Your task to perform on an android device: turn on javascript in the chrome app Image 0: 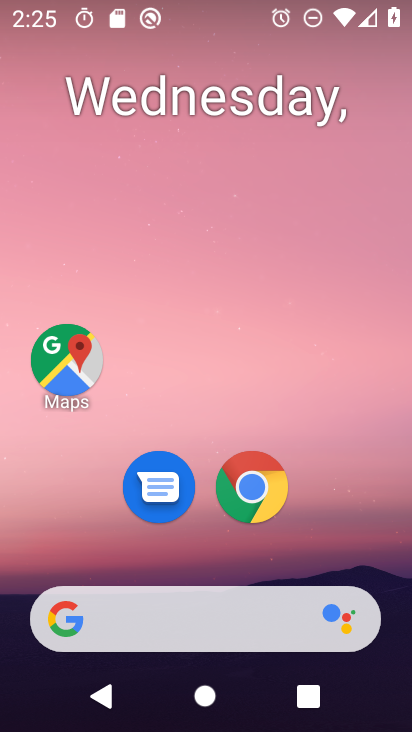
Step 0: click (257, 489)
Your task to perform on an android device: turn on javascript in the chrome app Image 1: 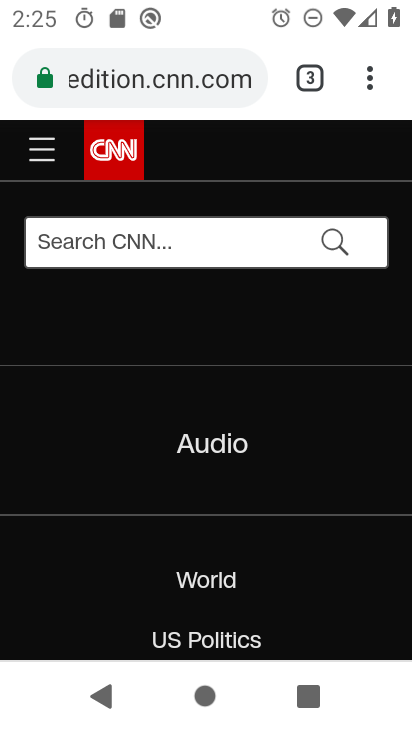
Step 1: drag from (369, 73) to (84, 542)
Your task to perform on an android device: turn on javascript in the chrome app Image 2: 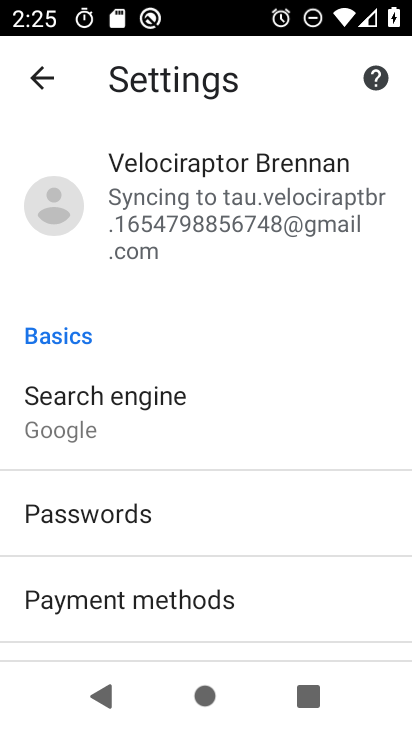
Step 2: drag from (164, 608) to (278, 92)
Your task to perform on an android device: turn on javascript in the chrome app Image 3: 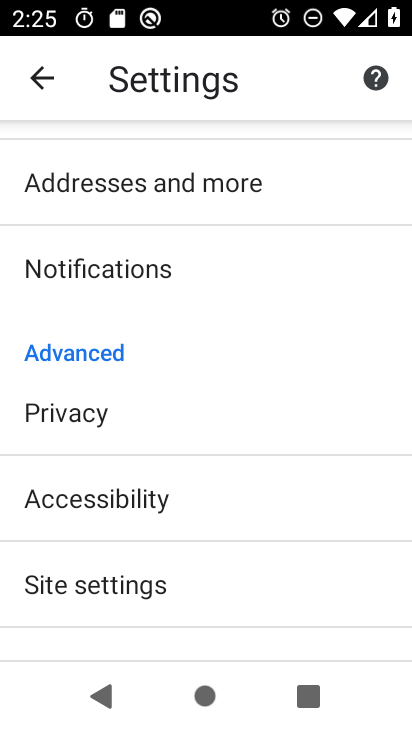
Step 3: click (135, 583)
Your task to perform on an android device: turn on javascript in the chrome app Image 4: 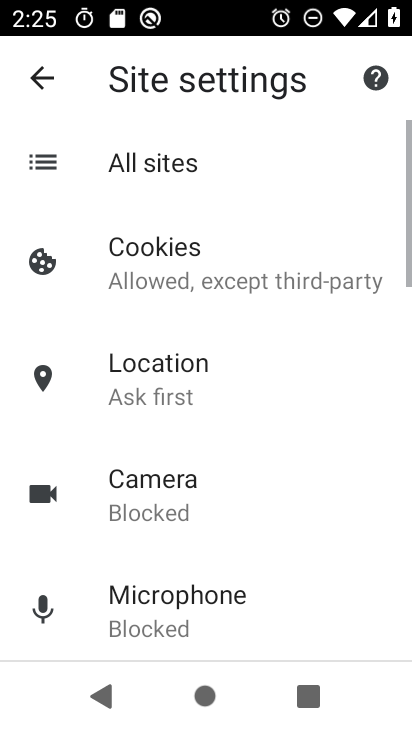
Step 4: drag from (149, 578) to (300, 2)
Your task to perform on an android device: turn on javascript in the chrome app Image 5: 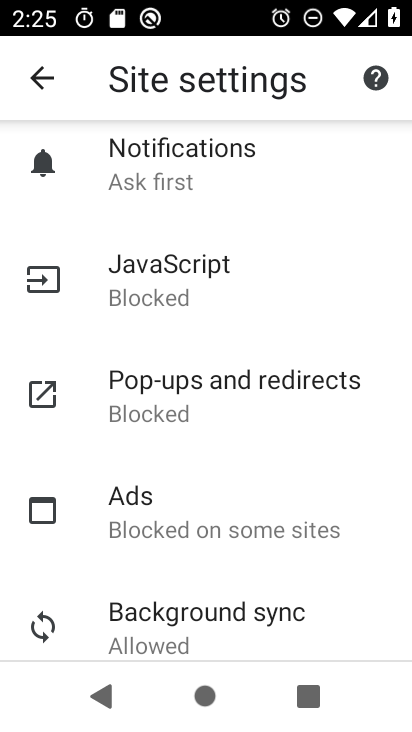
Step 5: click (178, 280)
Your task to perform on an android device: turn on javascript in the chrome app Image 6: 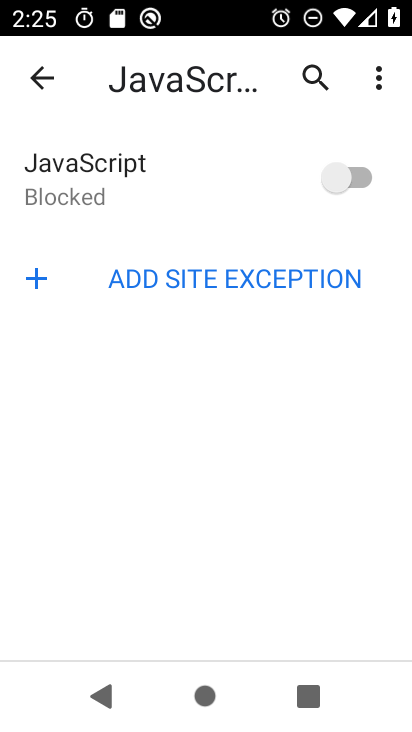
Step 6: click (344, 182)
Your task to perform on an android device: turn on javascript in the chrome app Image 7: 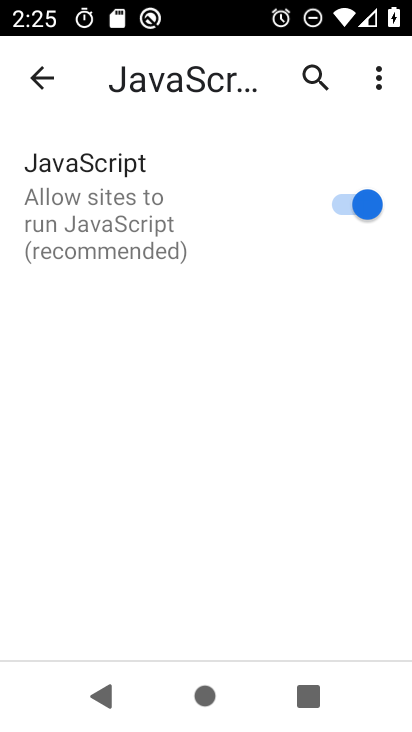
Step 7: task complete